Your task to perform on an android device: When is my next appointment? Image 0: 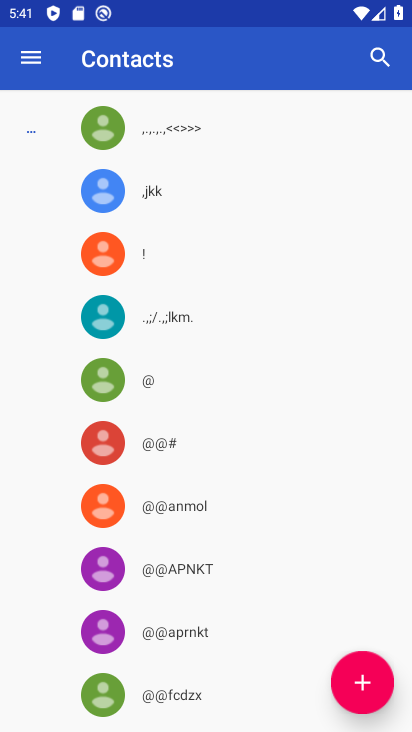
Step 0: press home button
Your task to perform on an android device: When is my next appointment? Image 1: 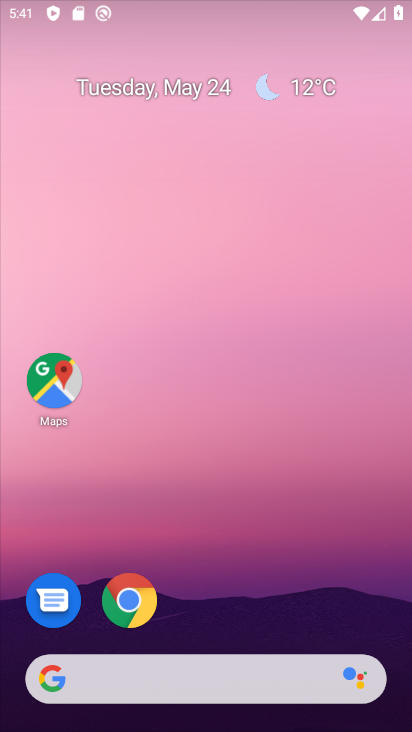
Step 1: drag from (242, 696) to (225, 139)
Your task to perform on an android device: When is my next appointment? Image 2: 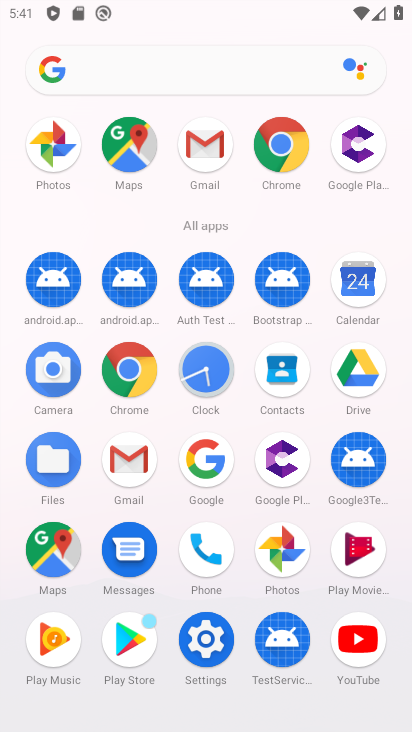
Step 2: click (116, 364)
Your task to perform on an android device: When is my next appointment? Image 3: 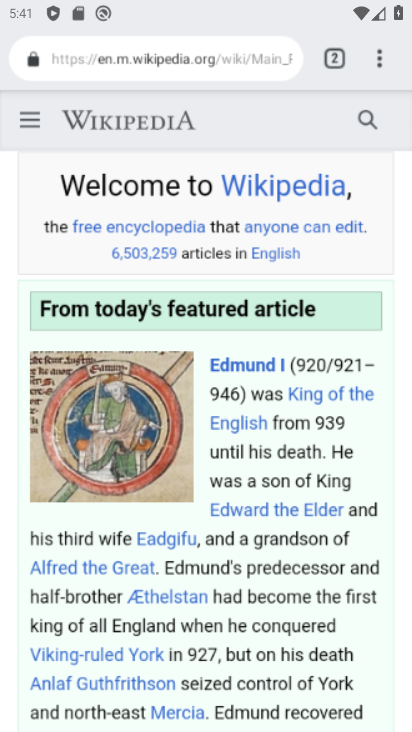
Step 3: press home button
Your task to perform on an android device: When is my next appointment? Image 4: 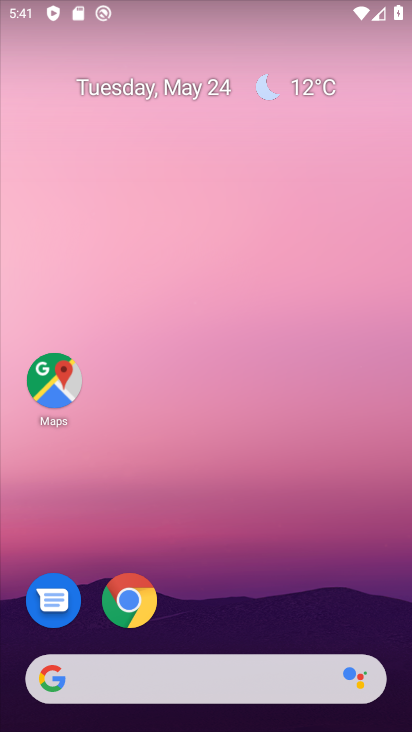
Step 4: drag from (249, 650) to (310, 34)
Your task to perform on an android device: When is my next appointment? Image 5: 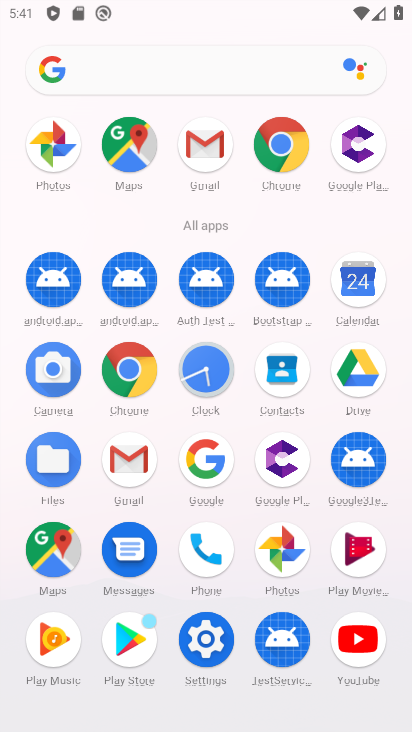
Step 5: click (365, 287)
Your task to perform on an android device: When is my next appointment? Image 6: 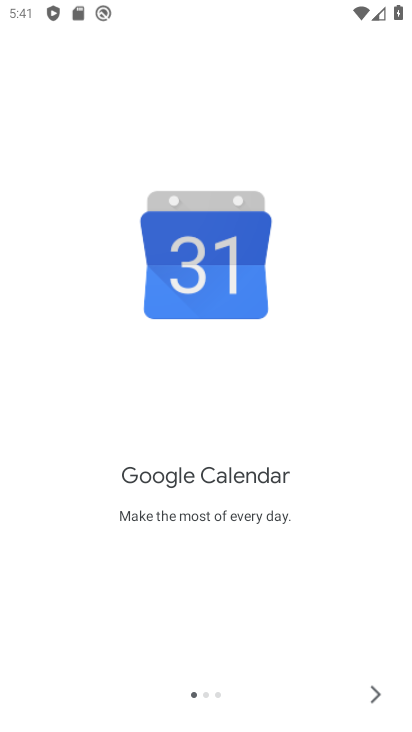
Step 6: click (375, 692)
Your task to perform on an android device: When is my next appointment? Image 7: 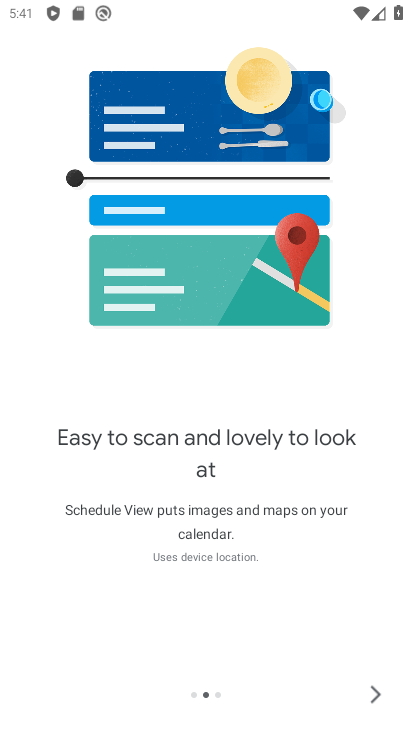
Step 7: click (374, 692)
Your task to perform on an android device: When is my next appointment? Image 8: 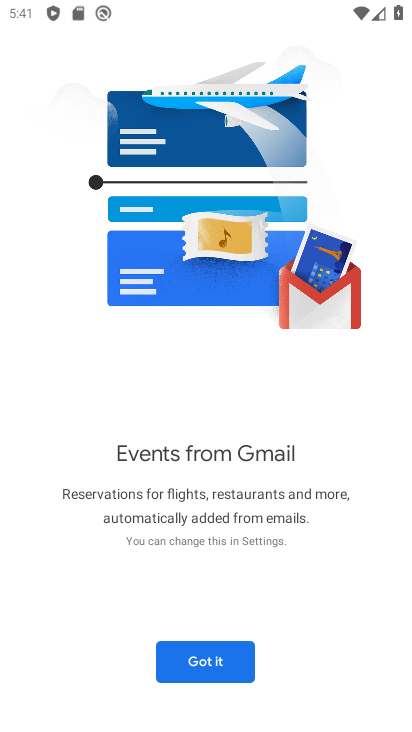
Step 8: click (239, 673)
Your task to perform on an android device: When is my next appointment? Image 9: 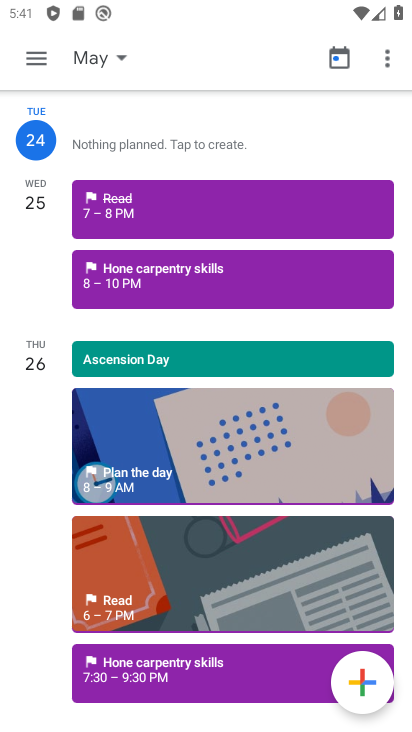
Step 9: click (110, 58)
Your task to perform on an android device: When is my next appointment? Image 10: 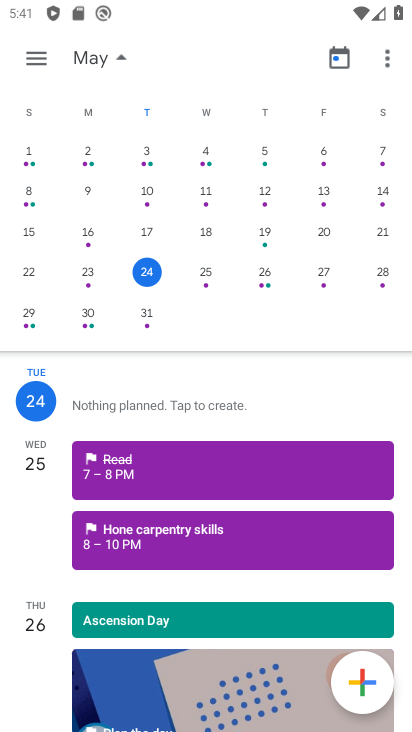
Step 10: click (154, 267)
Your task to perform on an android device: When is my next appointment? Image 11: 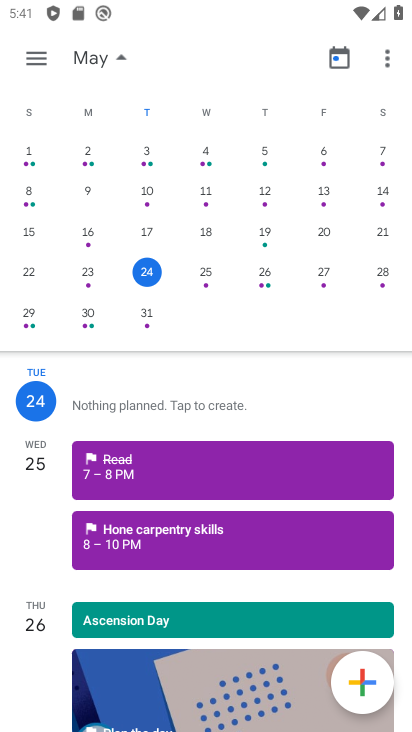
Step 11: task complete